Your task to perform on an android device: delete location history Image 0: 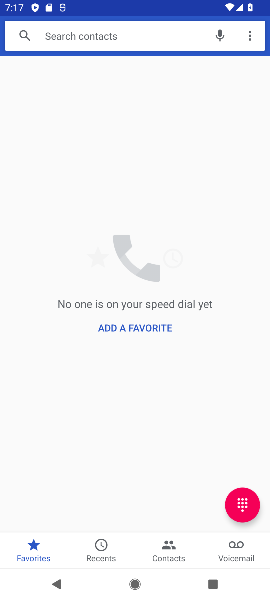
Step 0: press home button
Your task to perform on an android device: delete location history Image 1: 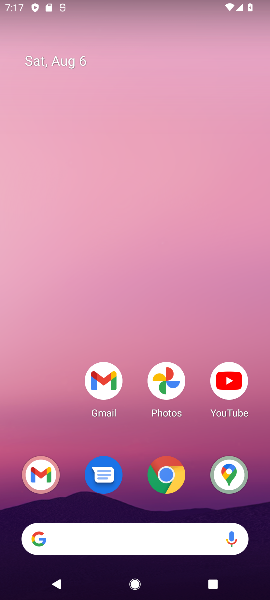
Step 1: click (134, 436)
Your task to perform on an android device: delete location history Image 2: 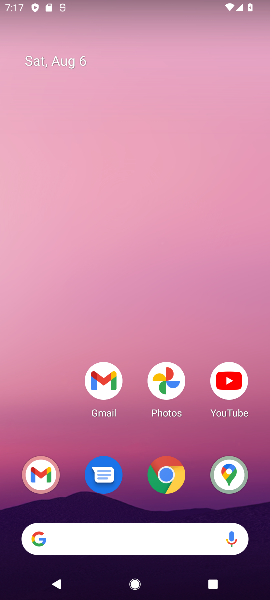
Step 2: click (240, 477)
Your task to perform on an android device: delete location history Image 3: 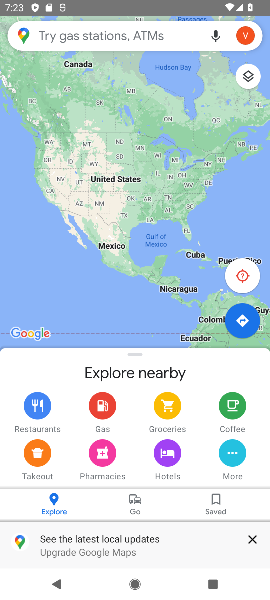
Step 3: click (242, 34)
Your task to perform on an android device: delete location history Image 4: 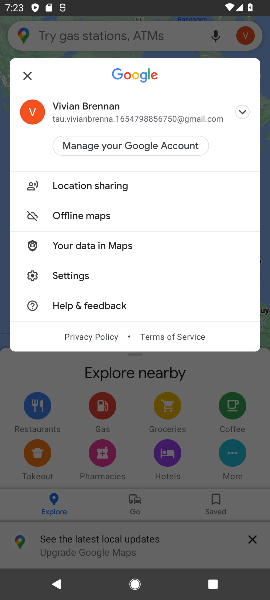
Step 4: click (96, 390)
Your task to perform on an android device: delete location history Image 5: 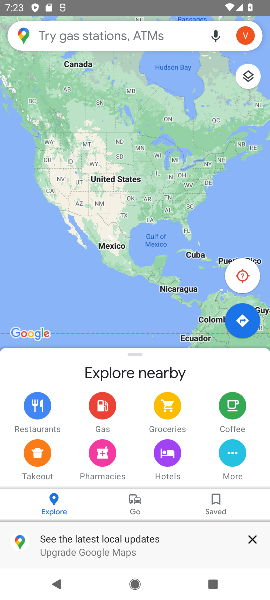
Step 5: press back button
Your task to perform on an android device: delete location history Image 6: 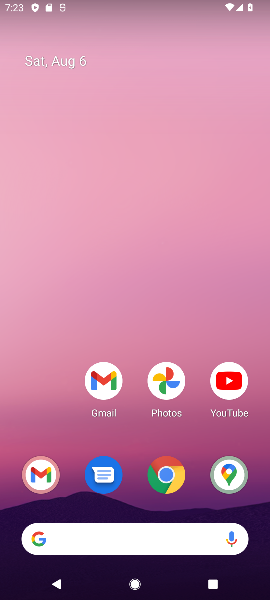
Step 6: click (227, 471)
Your task to perform on an android device: delete location history Image 7: 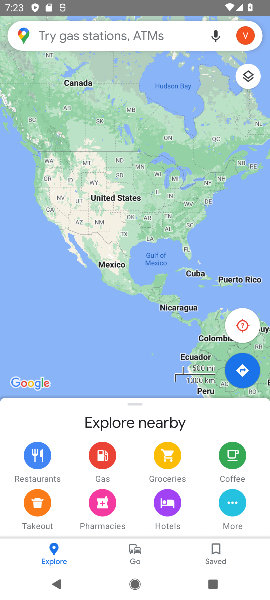
Step 7: click (28, 40)
Your task to perform on an android device: delete location history Image 8: 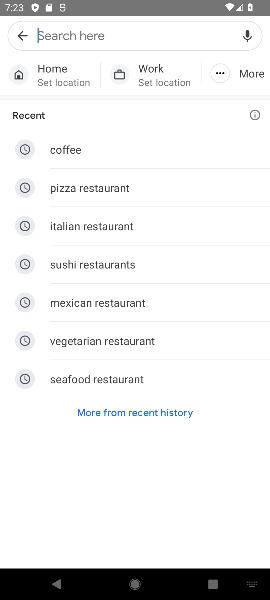
Step 8: click (20, 40)
Your task to perform on an android device: delete location history Image 9: 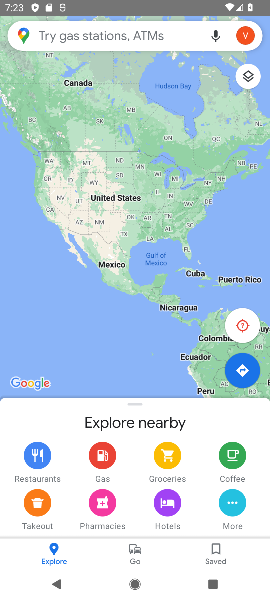
Step 9: click (20, 40)
Your task to perform on an android device: delete location history Image 10: 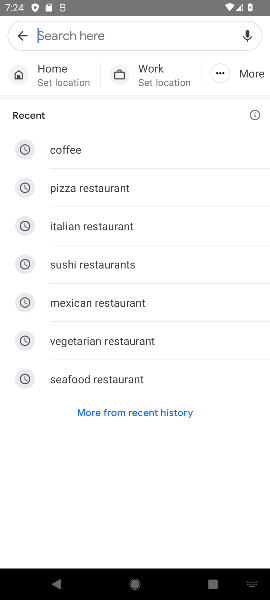
Step 10: click (11, 26)
Your task to perform on an android device: delete location history Image 11: 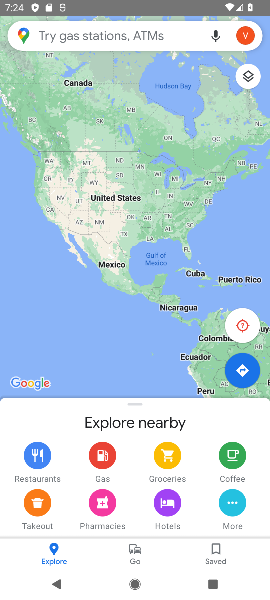
Step 11: click (236, 30)
Your task to perform on an android device: delete location history Image 12: 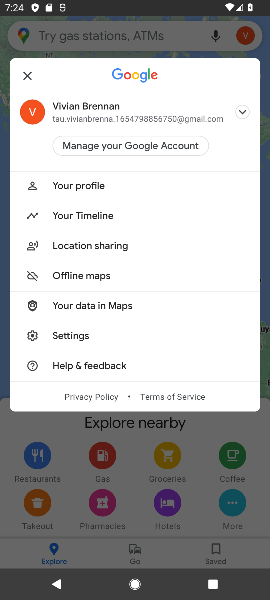
Step 12: click (76, 216)
Your task to perform on an android device: delete location history Image 13: 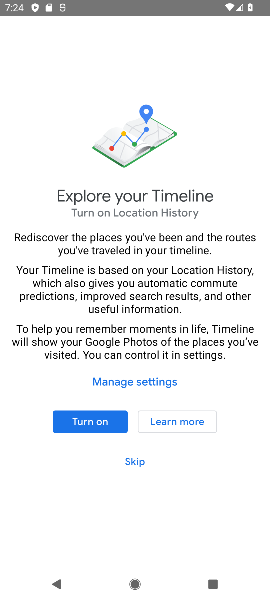
Step 13: click (134, 463)
Your task to perform on an android device: delete location history Image 14: 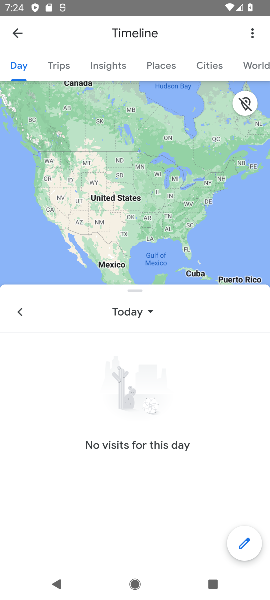
Step 14: click (252, 37)
Your task to perform on an android device: delete location history Image 15: 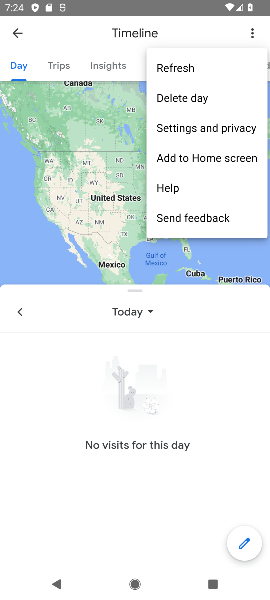
Step 15: click (186, 128)
Your task to perform on an android device: delete location history Image 16: 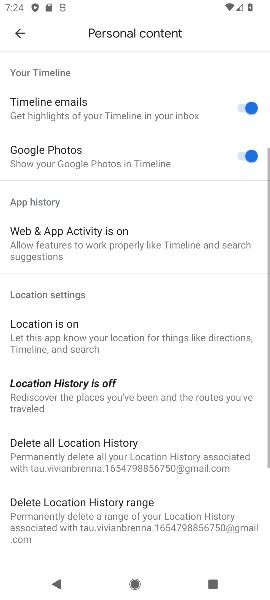
Step 16: drag from (150, 441) to (136, 263)
Your task to perform on an android device: delete location history Image 17: 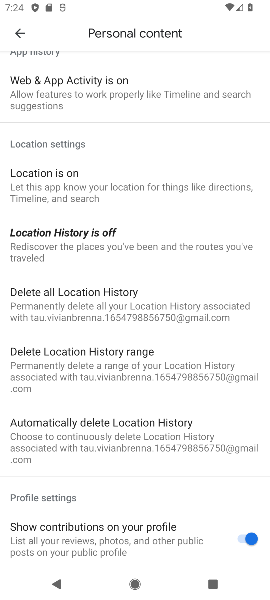
Step 17: click (116, 297)
Your task to perform on an android device: delete location history Image 18: 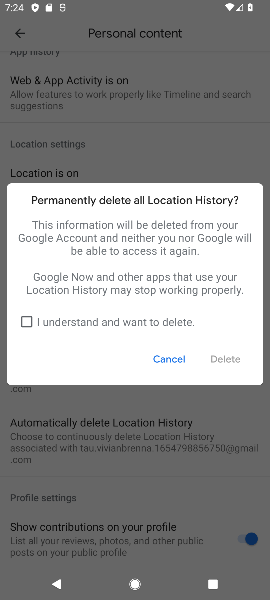
Step 18: click (151, 316)
Your task to perform on an android device: delete location history Image 19: 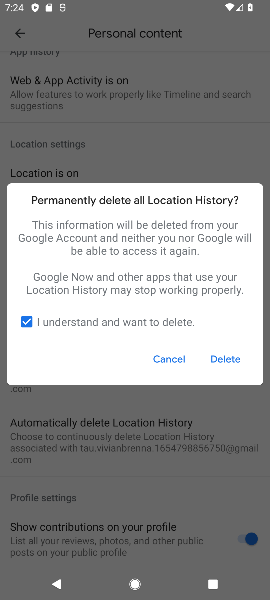
Step 19: click (220, 366)
Your task to perform on an android device: delete location history Image 20: 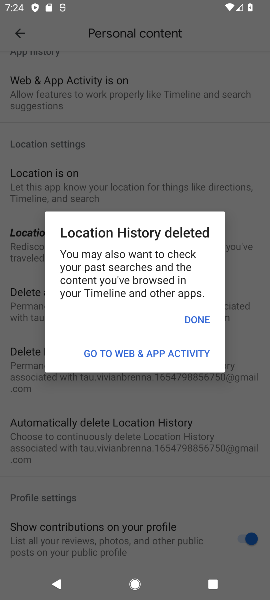
Step 20: click (193, 316)
Your task to perform on an android device: delete location history Image 21: 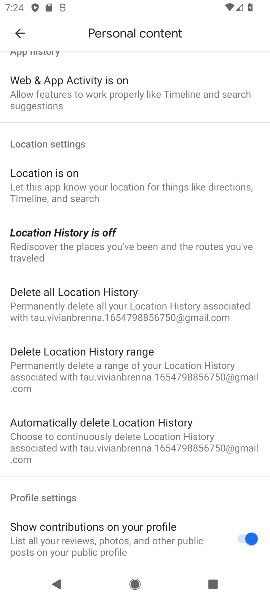
Step 21: task complete